Your task to perform on an android device: Go to Maps Image 0: 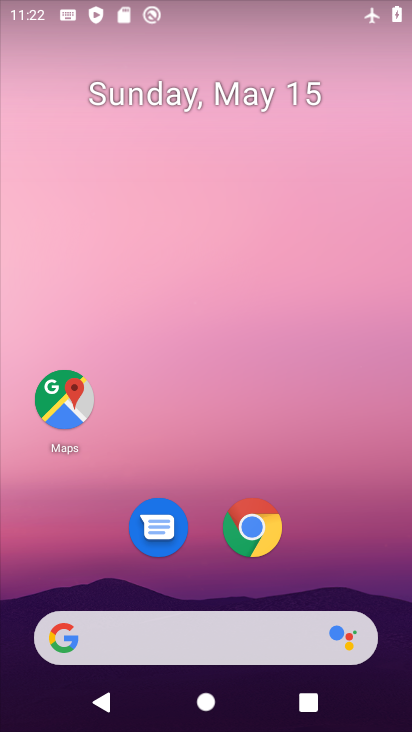
Step 0: drag from (307, 571) to (277, 1)
Your task to perform on an android device: Go to Maps Image 1: 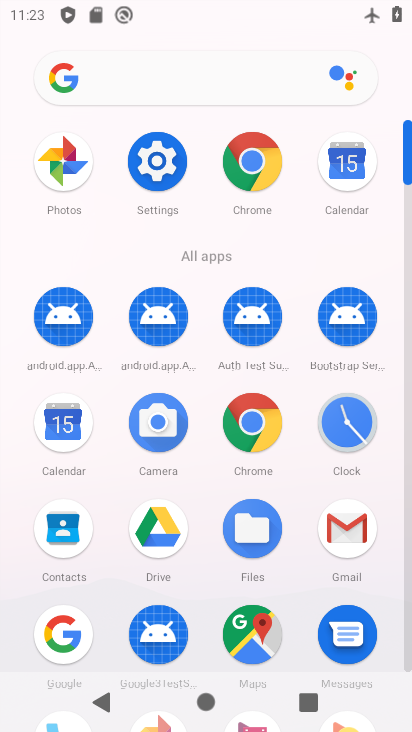
Step 1: click (249, 631)
Your task to perform on an android device: Go to Maps Image 2: 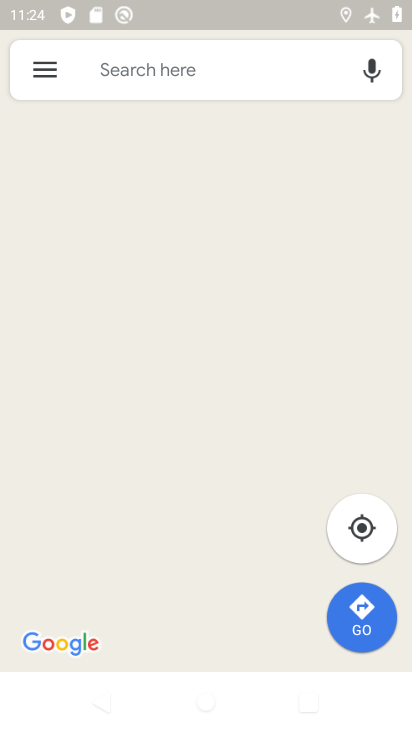
Step 2: task complete